Your task to perform on an android device: allow notifications from all sites in the chrome app Image 0: 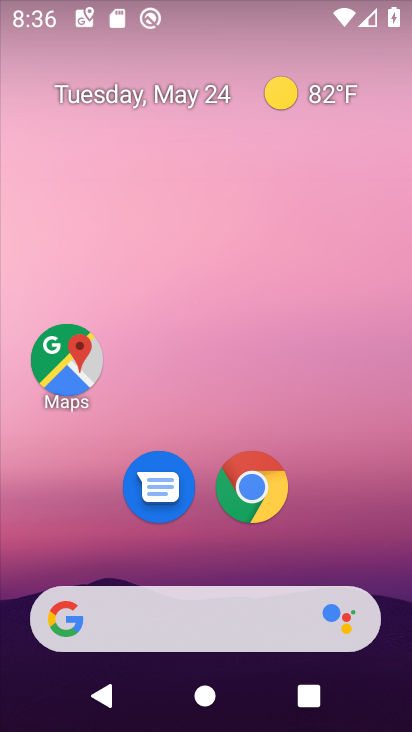
Step 0: drag from (373, 532) to (348, 113)
Your task to perform on an android device: allow notifications from all sites in the chrome app Image 1: 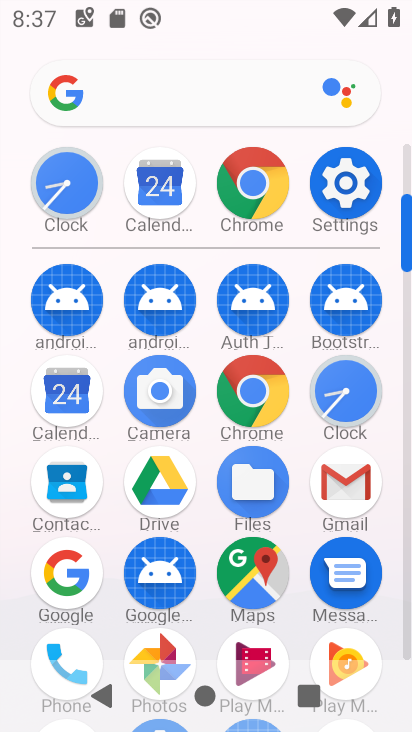
Step 1: click (259, 389)
Your task to perform on an android device: allow notifications from all sites in the chrome app Image 2: 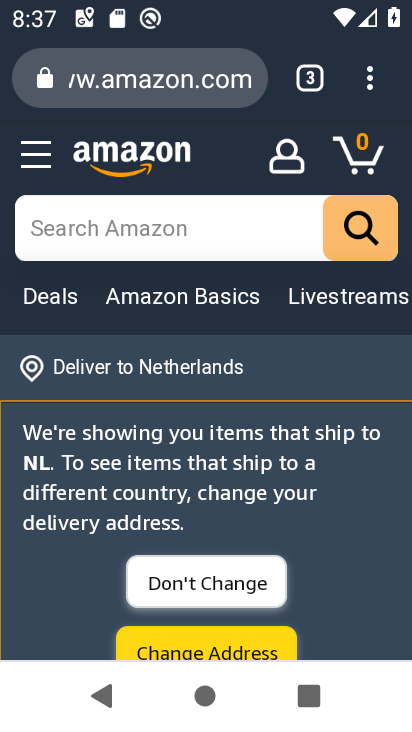
Step 2: drag from (381, 89) to (224, 574)
Your task to perform on an android device: allow notifications from all sites in the chrome app Image 3: 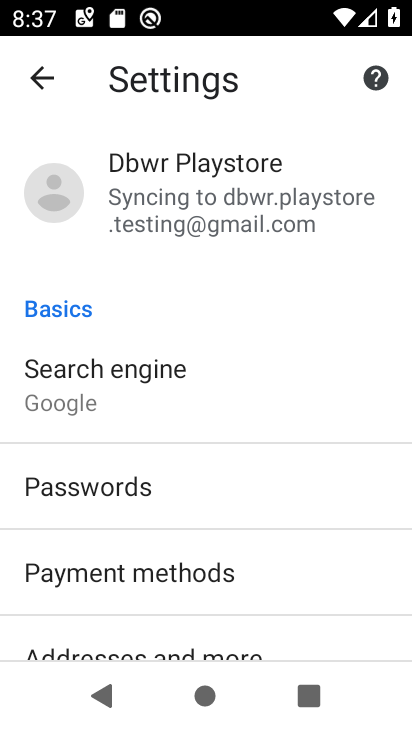
Step 3: drag from (220, 585) to (273, 293)
Your task to perform on an android device: allow notifications from all sites in the chrome app Image 4: 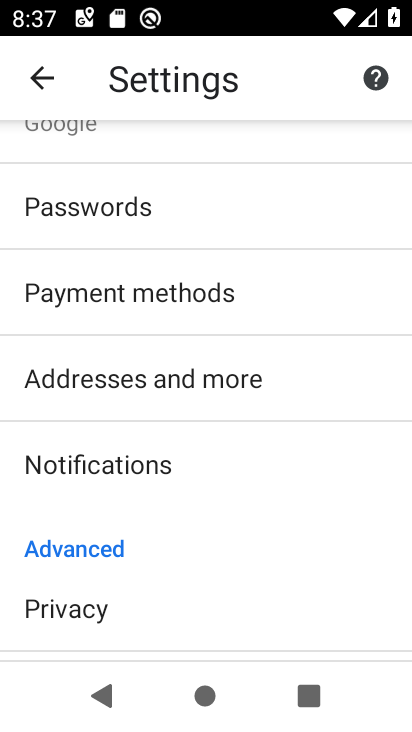
Step 4: drag from (253, 559) to (296, 248)
Your task to perform on an android device: allow notifications from all sites in the chrome app Image 5: 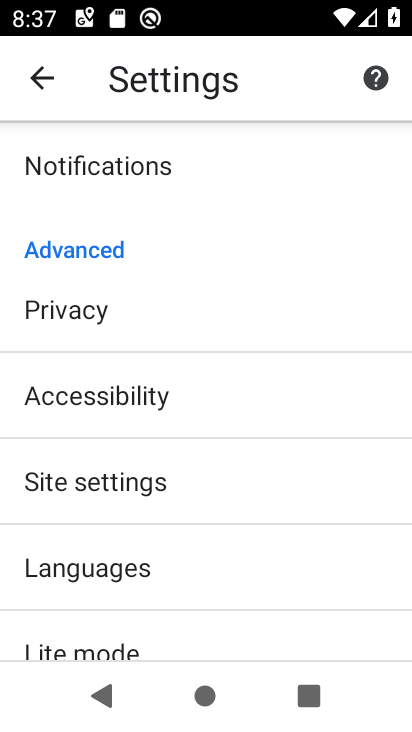
Step 5: click (178, 477)
Your task to perform on an android device: allow notifications from all sites in the chrome app Image 6: 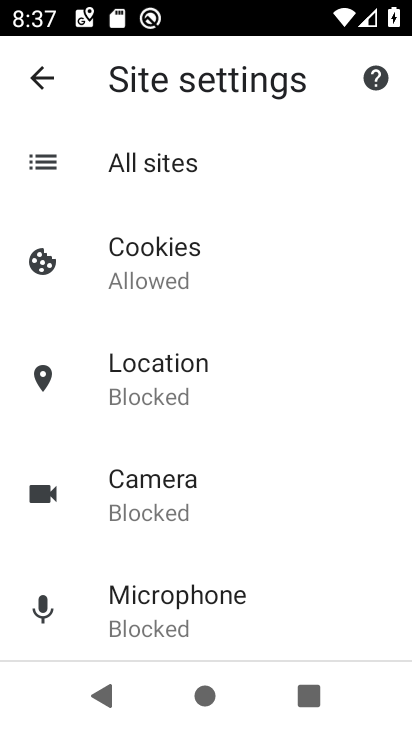
Step 6: click (152, 161)
Your task to perform on an android device: allow notifications from all sites in the chrome app Image 7: 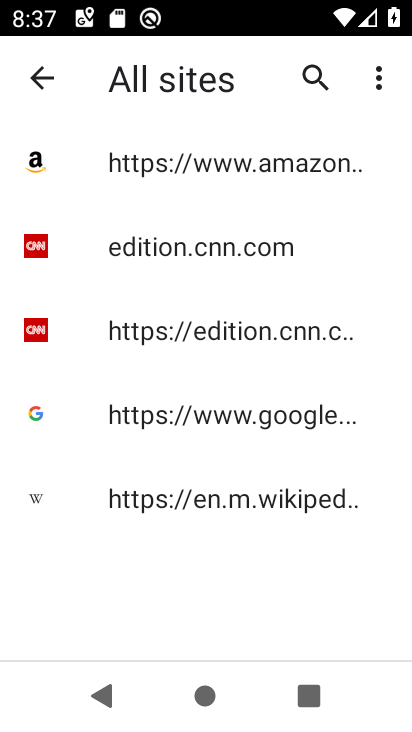
Step 7: click (152, 161)
Your task to perform on an android device: allow notifications from all sites in the chrome app Image 8: 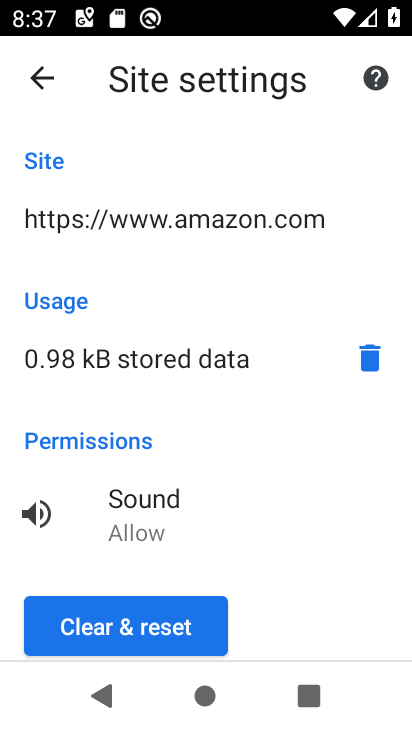
Step 8: task complete